Your task to perform on an android device: Search for top rated burger restaurants on Maps Image 0: 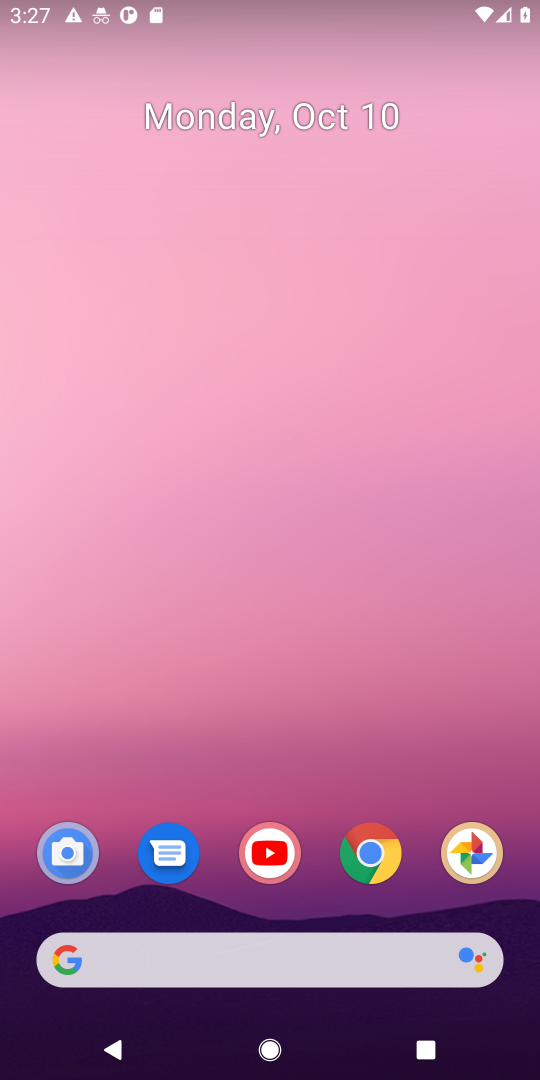
Step 0: click (403, 864)
Your task to perform on an android device: Search for top rated burger restaurants on Maps Image 1: 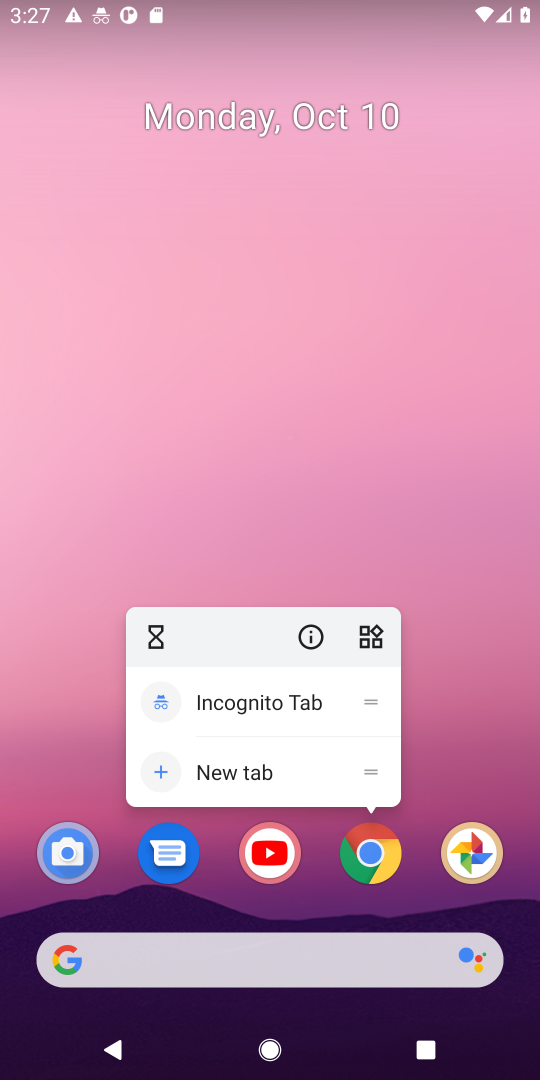
Step 1: click (371, 859)
Your task to perform on an android device: Search for top rated burger restaurants on Maps Image 2: 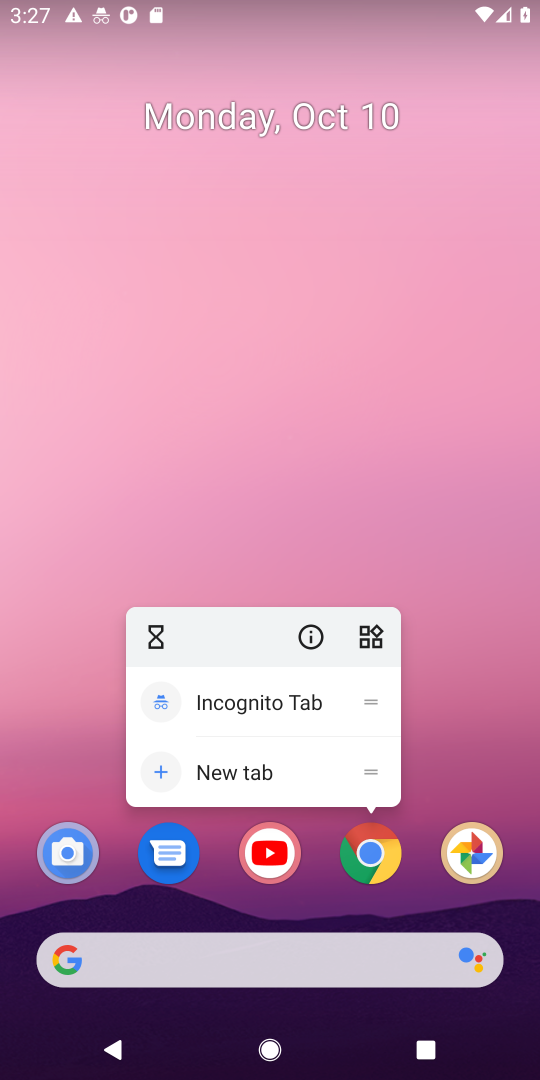
Step 2: click (355, 845)
Your task to perform on an android device: Search for top rated burger restaurants on Maps Image 3: 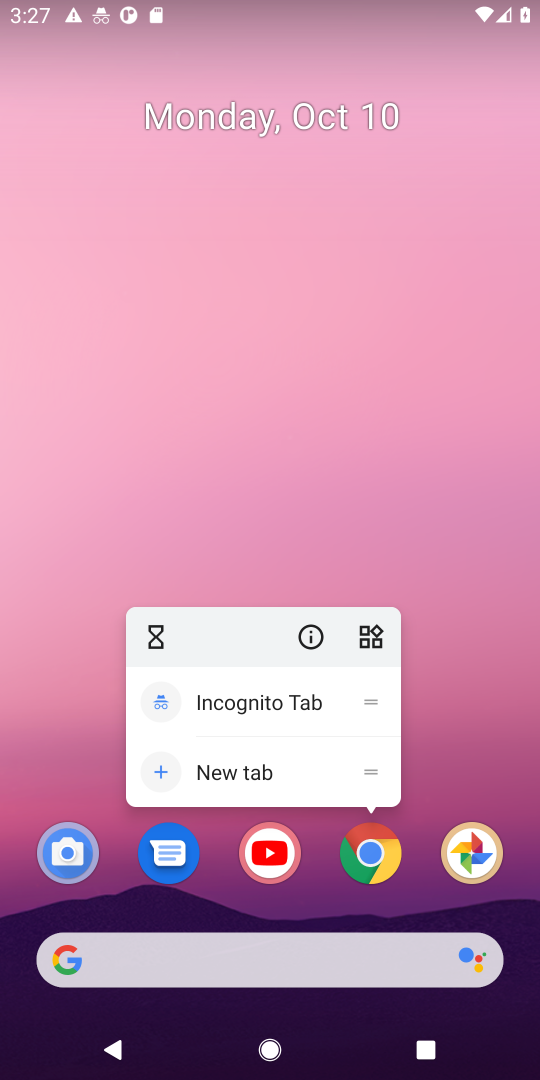
Step 3: click (384, 880)
Your task to perform on an android device: Search for top rated burger restaurants on Maps Image 4: 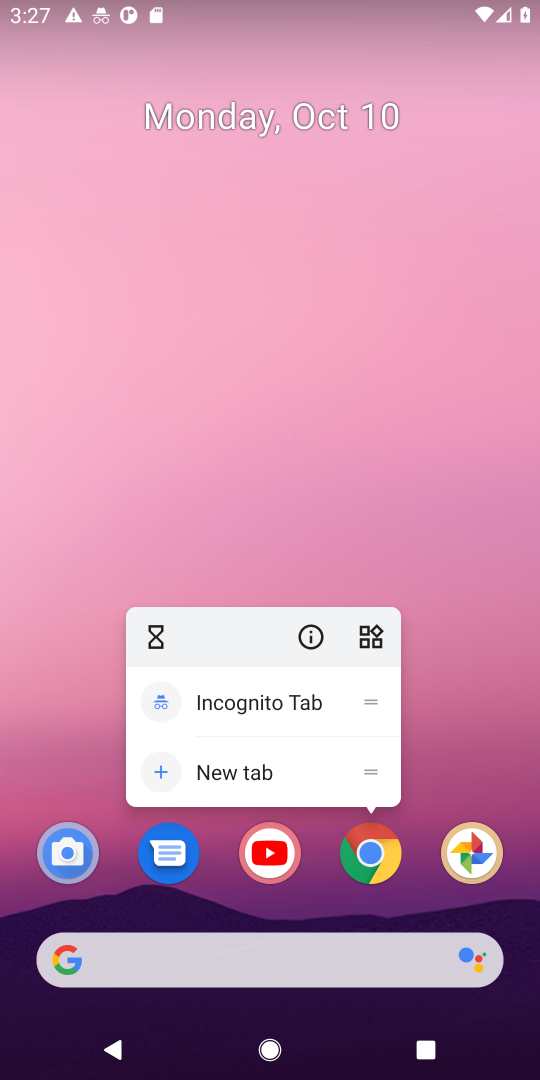
Step 4: click (386, 881)
Your task to perform on an android device: Search for top rated burger restaurants on Maps Image 5: 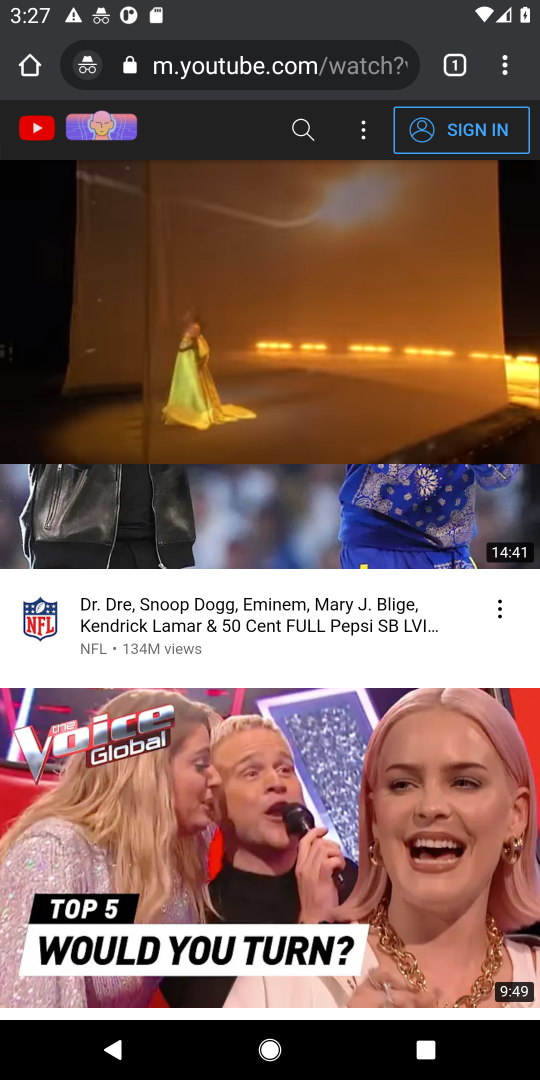
Step 5: click (259, 76)
Your task to perform on an android device: Search for top rated burger restaurants on Maps Image 6: 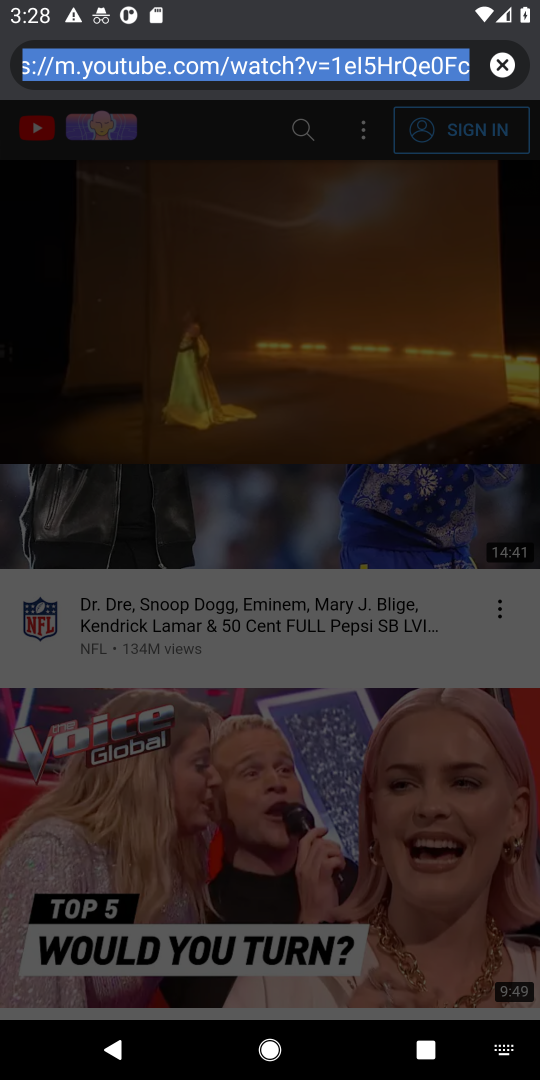
Step 6: type "top rated burger restaurants on Maps"
Your task to perform on an android device: Search for top rated burger restaurants on Maps Image 7: 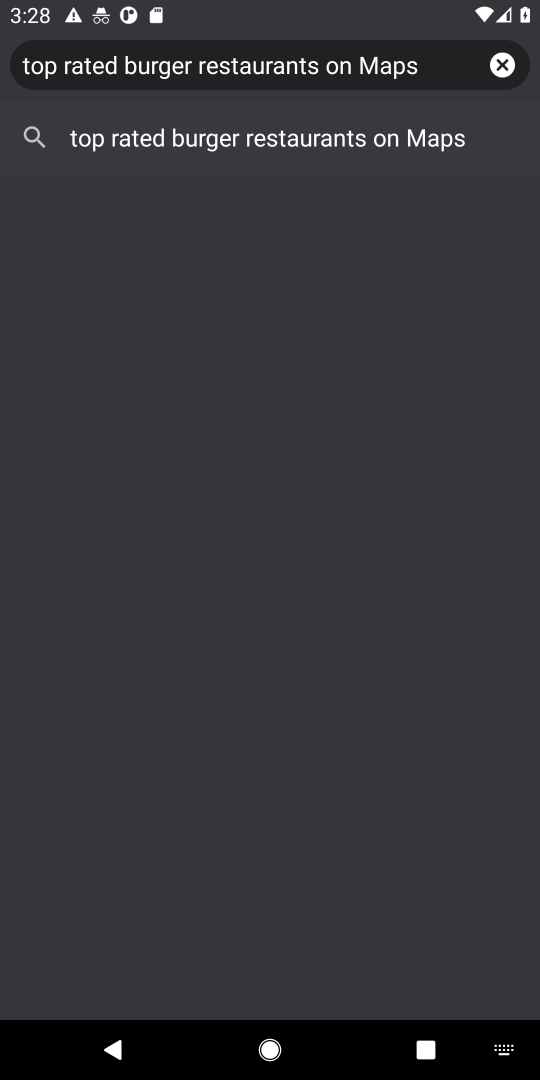
Step 7: type ""
Your task to perform on an android device: Search for top rated burger restaurants on Maps Image 8: 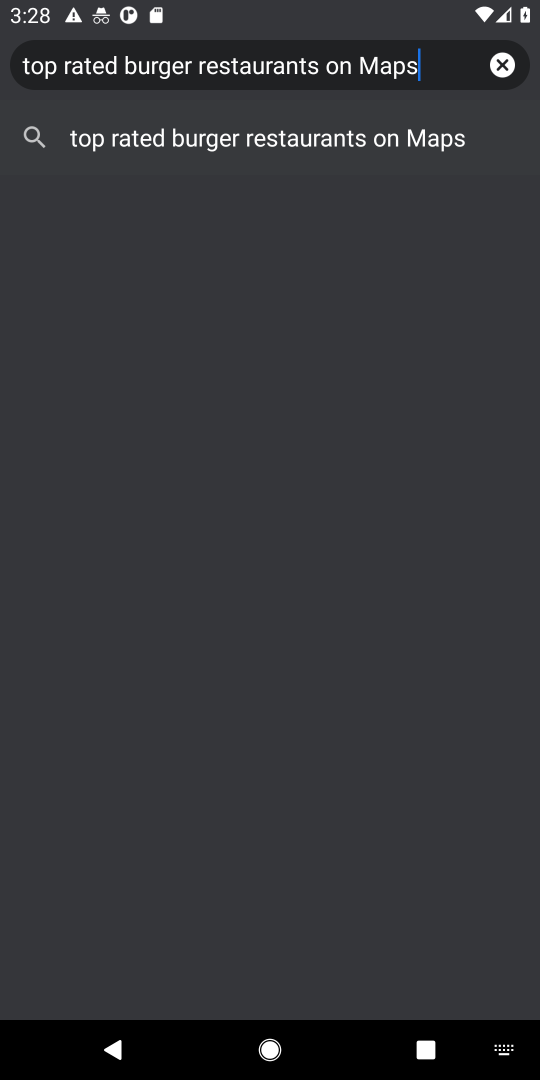
Step 8: click (347, 151)
Your task to perform on an android device: Search for top rated burger restaurants on Maps Image 9: 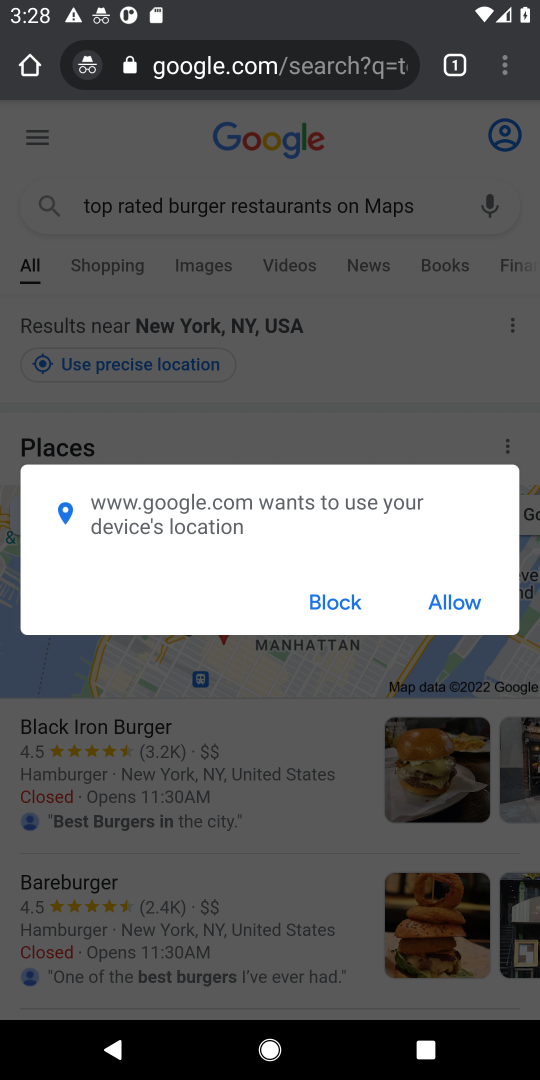
Step 9: click (365, 603)
Your task to perform on an android device: Search for top rated burger restaurants on Maps Image 10: 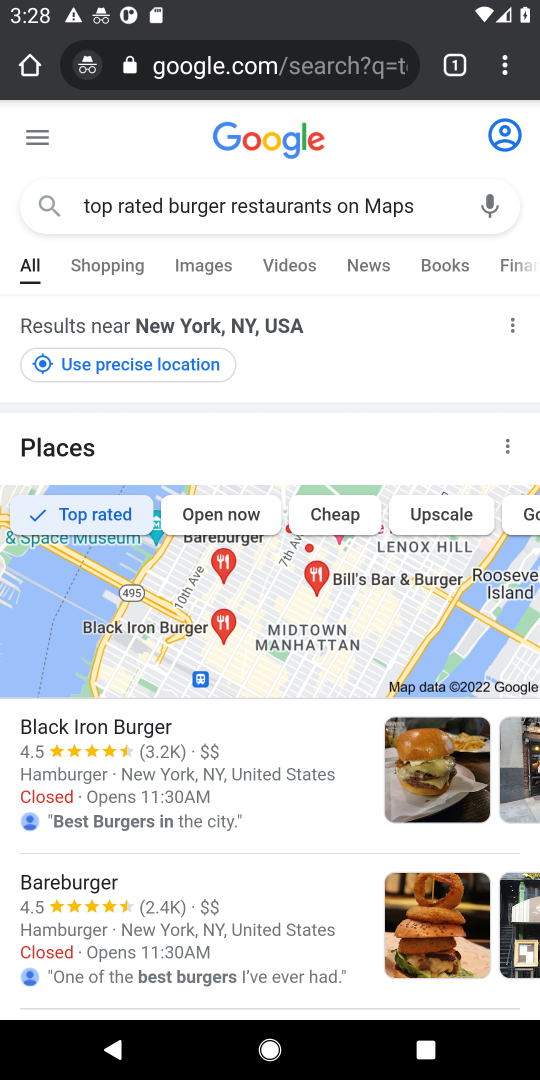
Step 10: click (327, 624)
Your task to perform on an android device: Search for top rated burger restaurants on Maps Image 11: 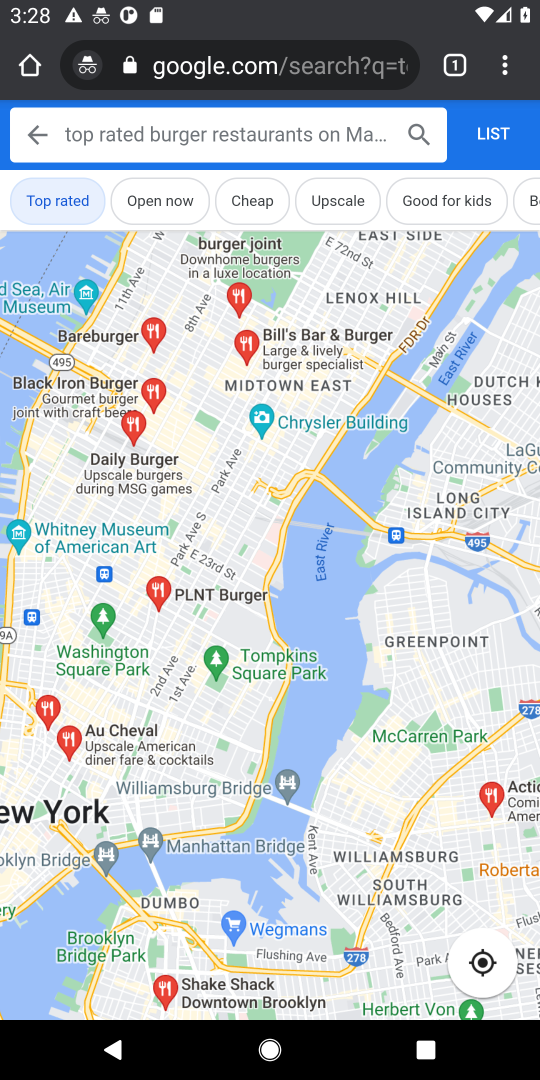
Step 11: click (31, 197)
Your task to perform on an android device: Search for top rated burger restaurants on Maps Image 12: 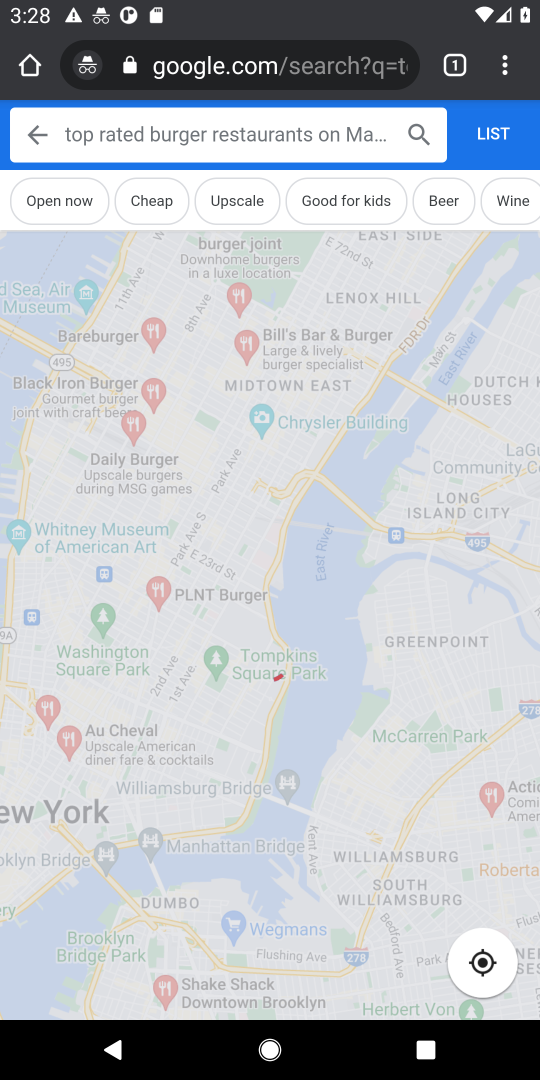
Step 12: click (416, 136)
Your task to perform on an android device: Search for top rated burger restaurants on Maps Image 13: 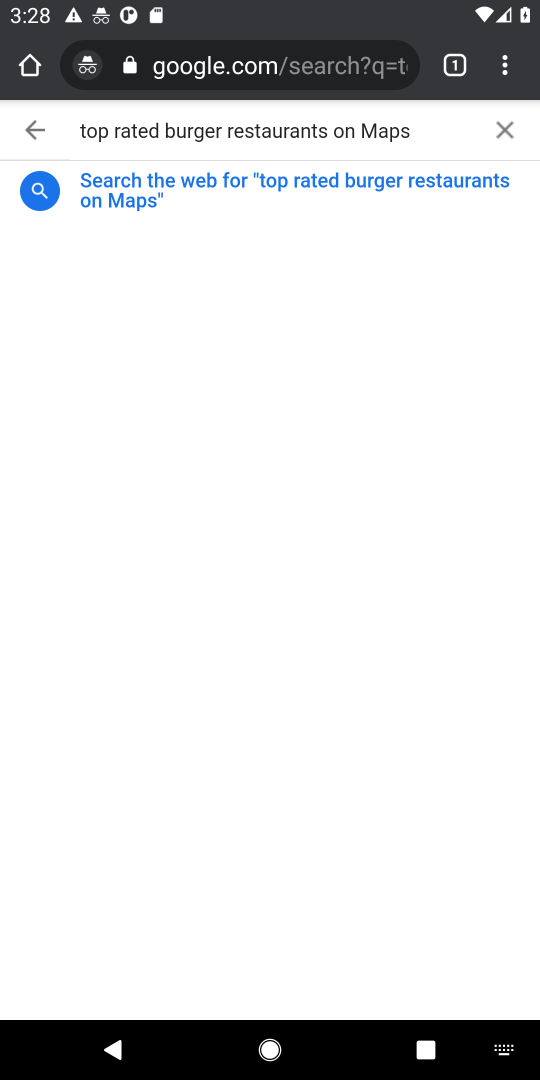
Step 13: click (333, 191)
Your task to perform on an android device: Search for top rated burger restaurants on Maps Image 14: 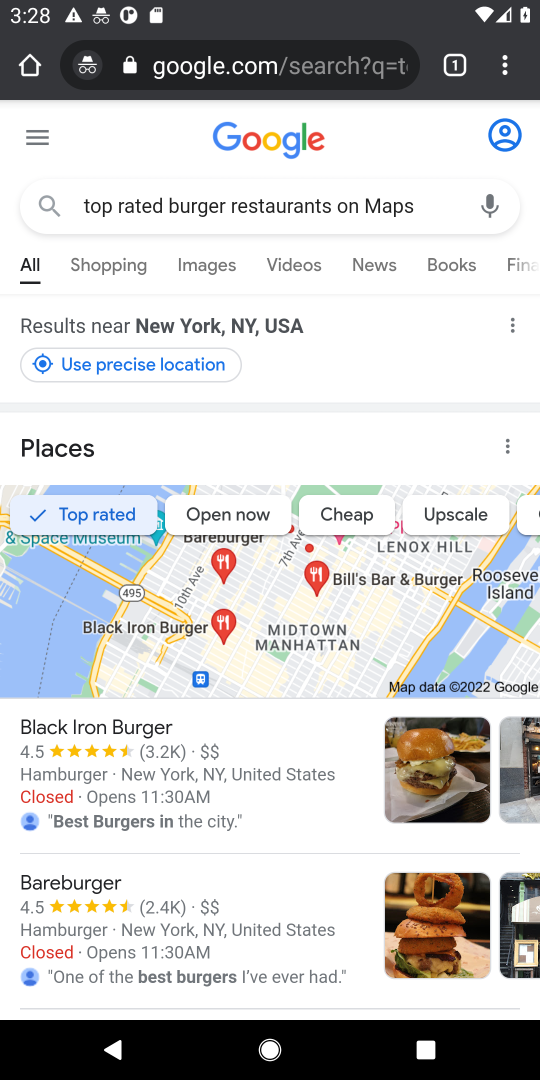
Step 14: click (170, 603)
Your task to perform on an android device: Search for top rated burger restaurants on Maps Image 15: 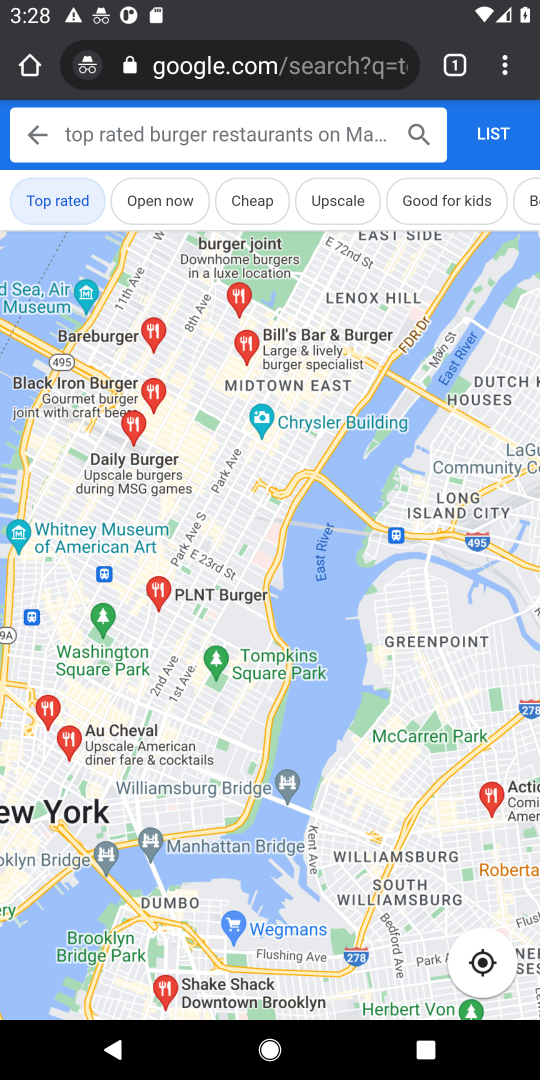
Step 15: drag from (312, 490) to (328, 404)
Your task to perform on an android device: Search for top rated burger restaurants on Maps Image 16: 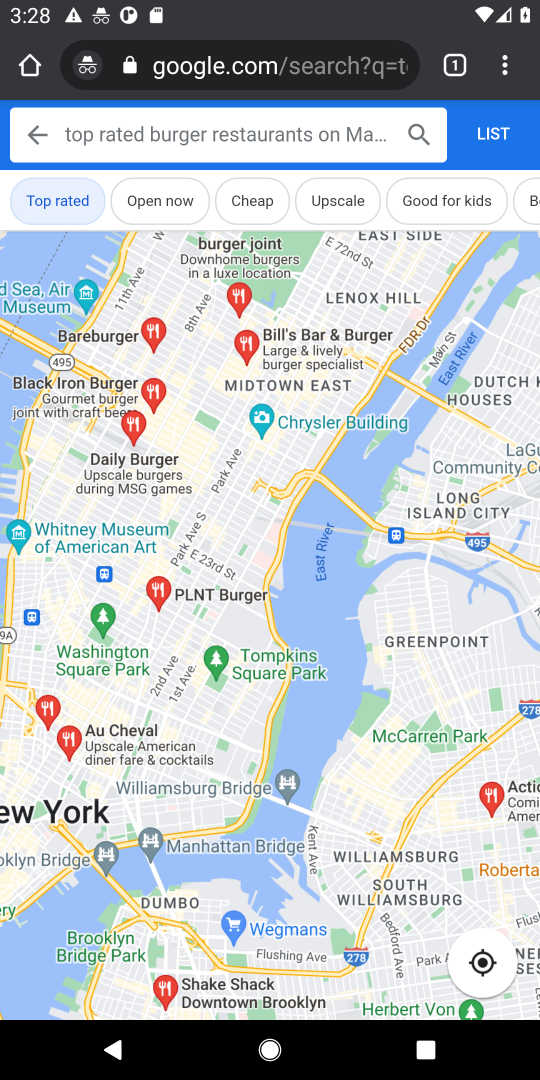
Step 16: drag from (161, 489) to (331, 444)
Your task to perform on an android device: Search for top rated burger restaurants on Maps Image 17: 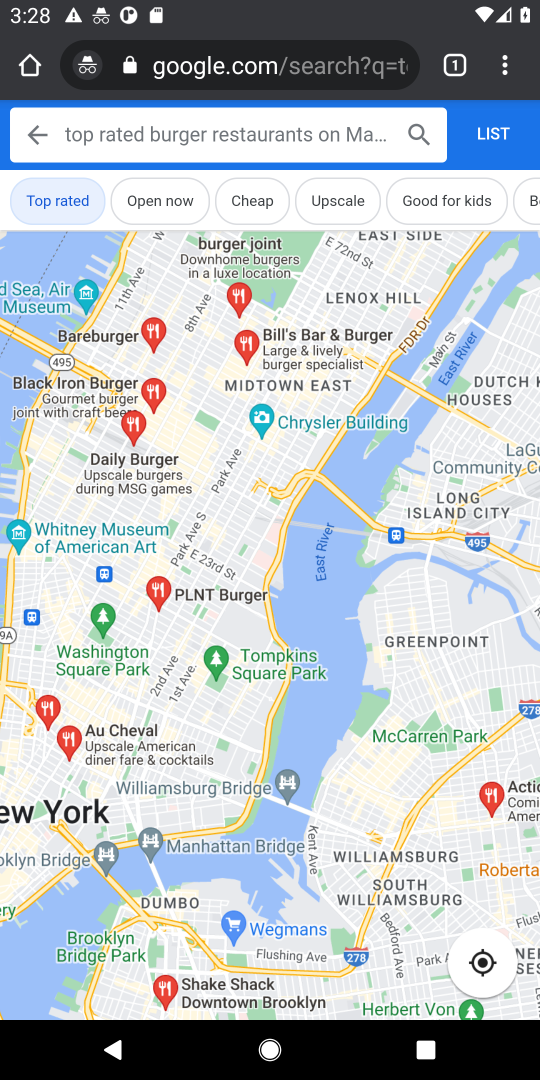
Step 17: drag from (189, 503) to (339, 379)
Your task to perform on an android device: Search for top rated burger restaurants on Maps Image 18: 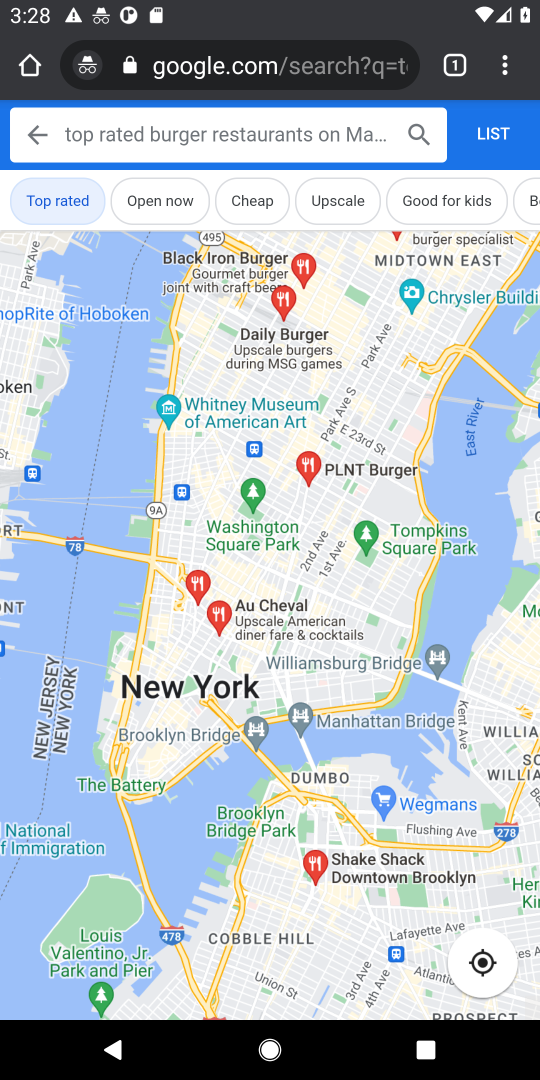
Step 18: drag from (121, 544) to (211, 662)
Your task to perform on an android device: Search for top rated burger restaurants on Maps Image 19: 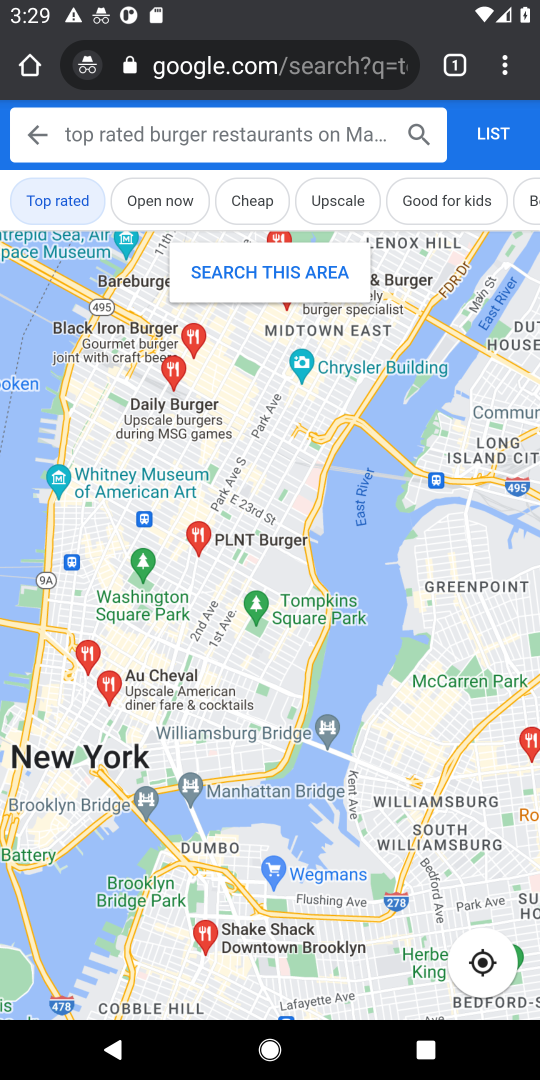
Step 19: drag from (245, 622) to (434, 648)
Your task to perform on an android device: Search for top rated burger restaurants on Maps Image 20: 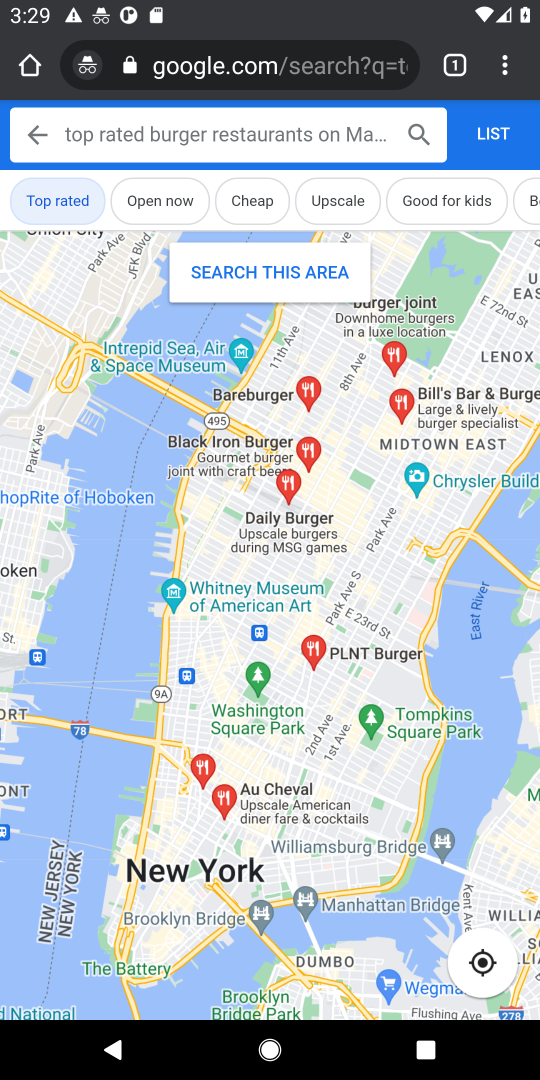
Step 20: drag from (363, 447) to (297, 786)
Your task to perform on an android device: Search for top rated burger restaurants on Maps Image 21: 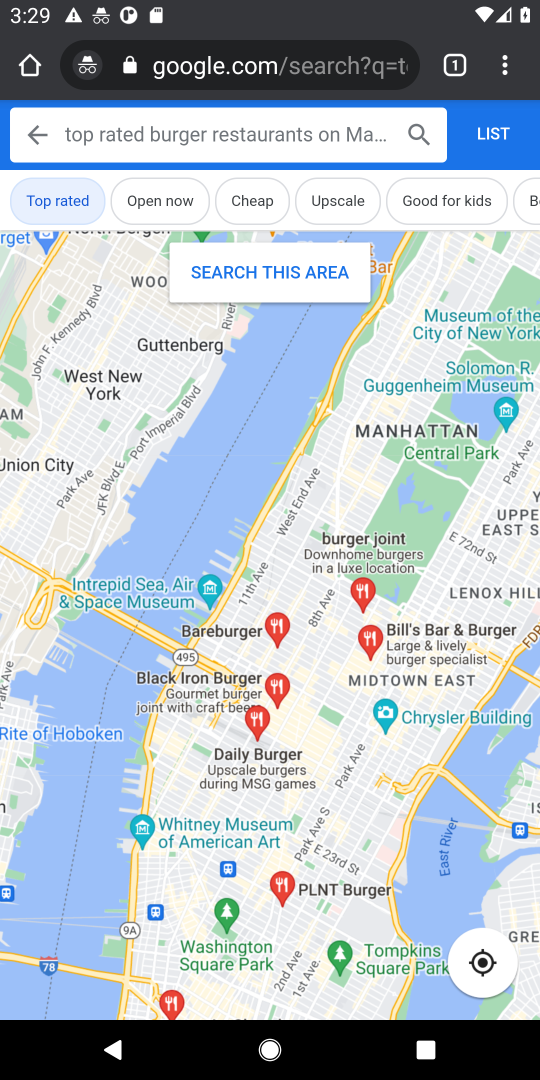
Step 21: drag from (277, 618) to (326, 721)
Your task to perform on an android device: Search for top rated burger restaurants on Maps Image 22: 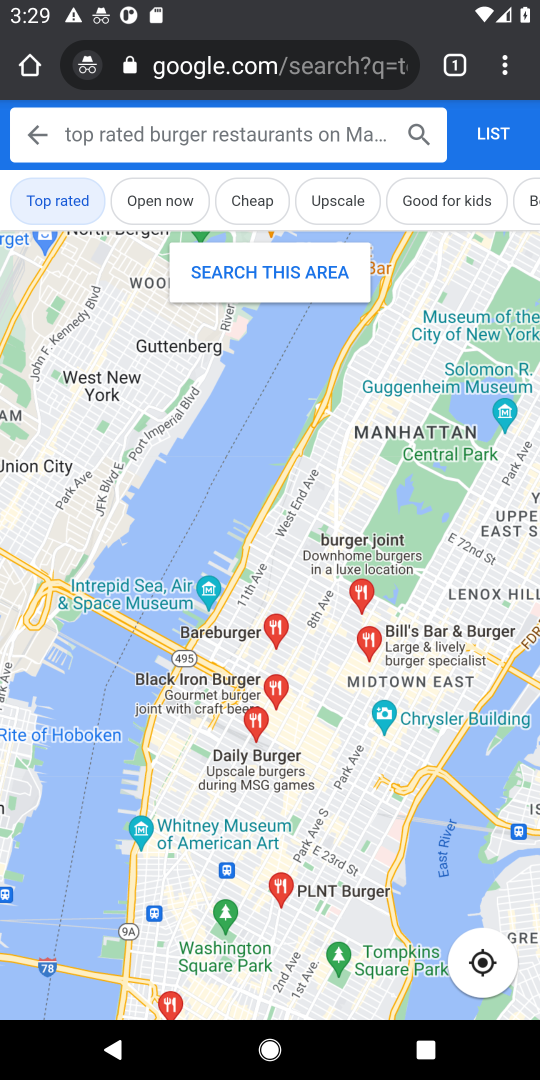
Step 22: drag from (339, 710) to (339, 777)
Your task to perform on an android device: Search for top rated burger restaurants on Maps Image 23: 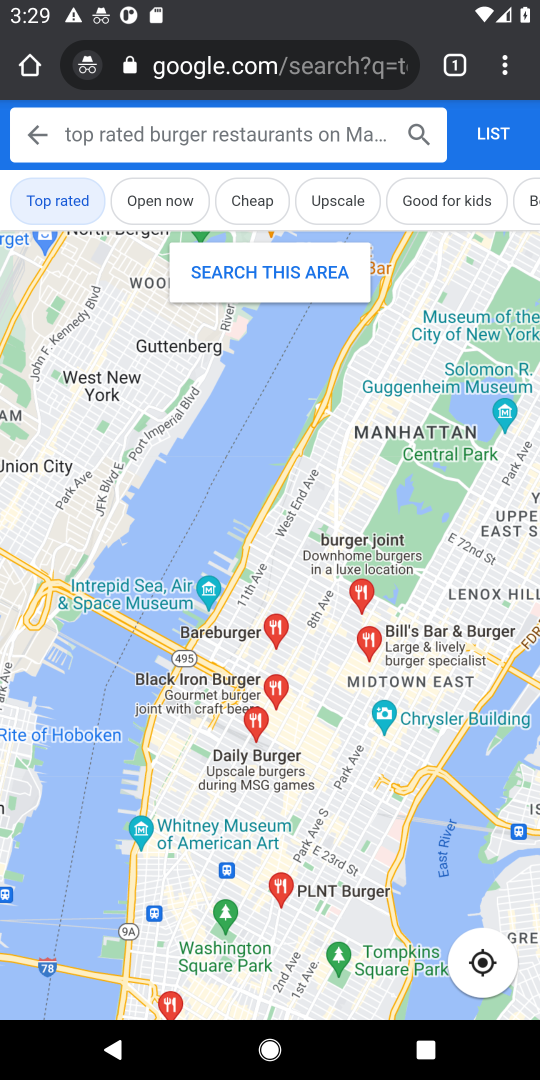
Step 23: drag from (371, 704) to (347, 801)
Your task to perform on an android device: Search for top rated burger restaurants on Maps Image 24: 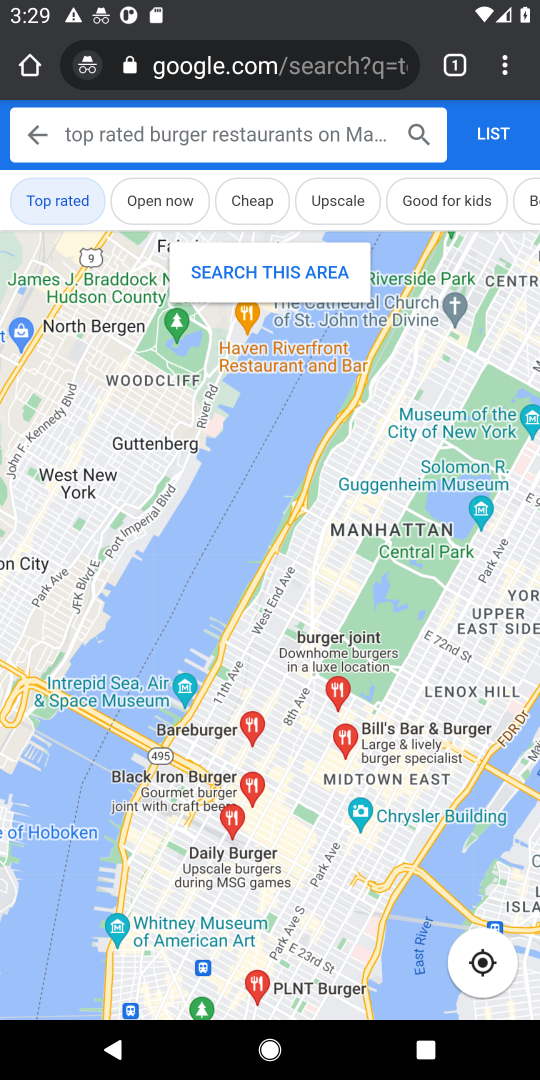
Step 24: drag from (328, 747) to (346, 693)
Your task to perform on an android device: Search for top rated burger restaurants on Maps Image 25: 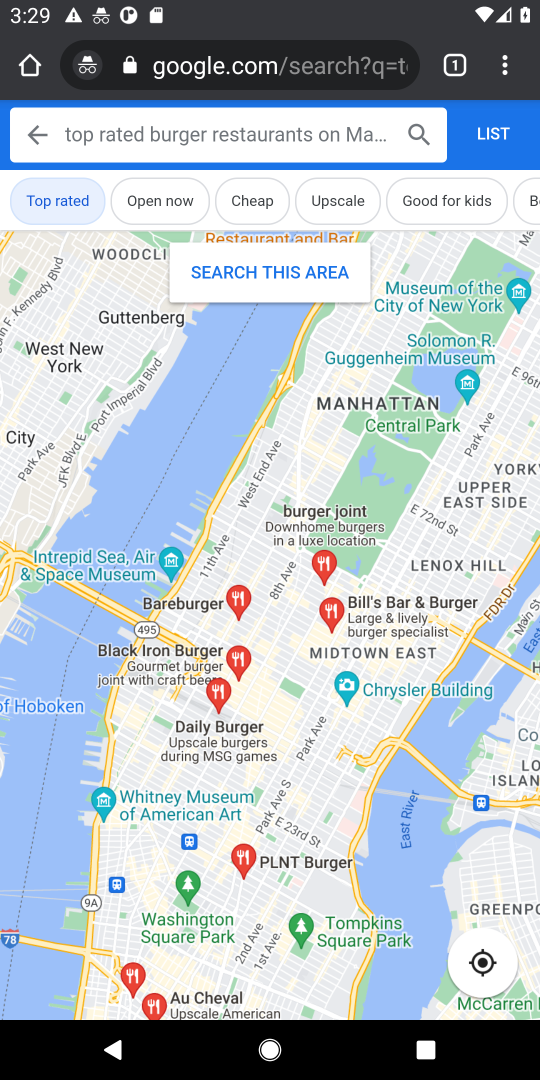
Step 25: click (315, 460)
Your task to perform on an android device: Search for top rated burger restaurants on Maps Image 26: 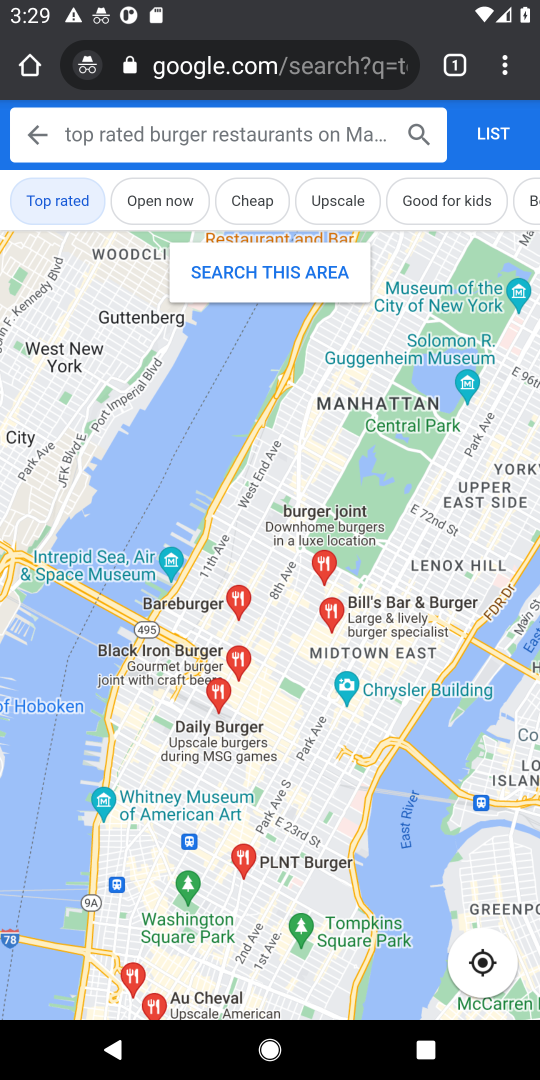
Step 26: drag from (279, 446) to (418, 621)
Your task to perform on an android device: Search for top rated burger restaurants on Maps Image 27: 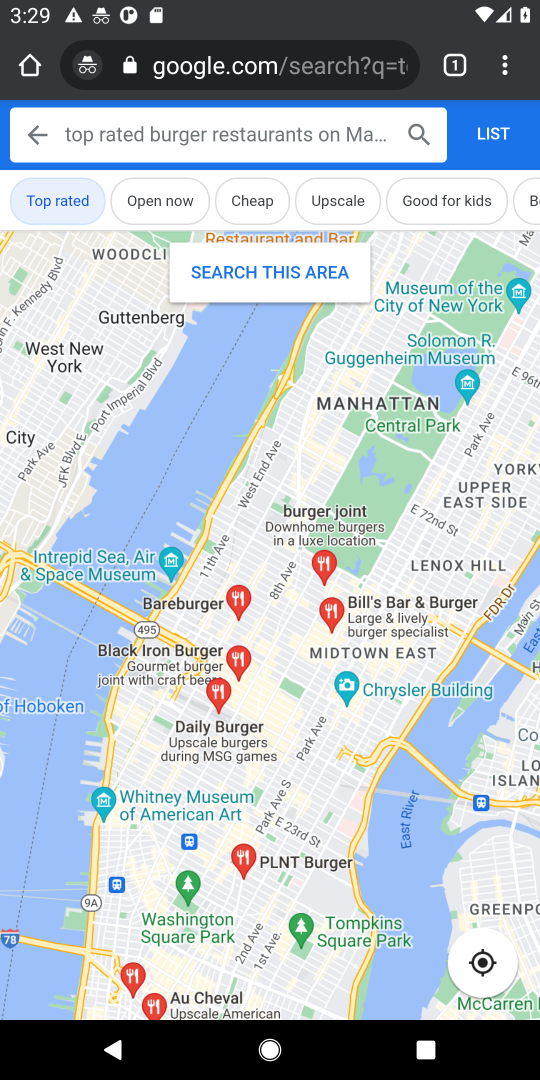
Step 27: drag from (398, 646) to (420, 764)
Your task to perform on an android device: Search for top rated burger restaurants on Maps Image 28: 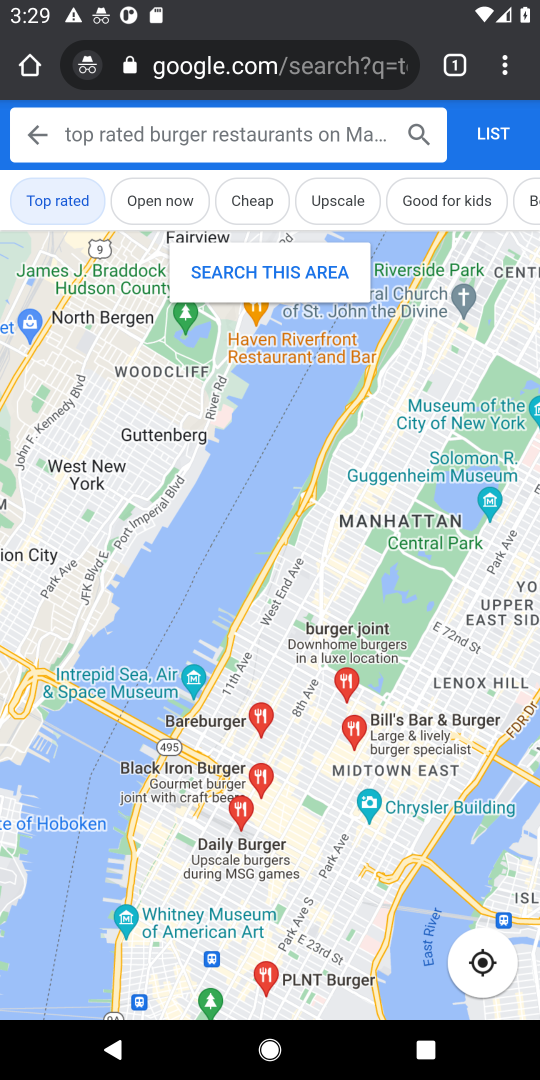
Step 28: click (376, 752)
Your task to perform on an android device: Search for top rated burger restaurants on Maps Image 29: 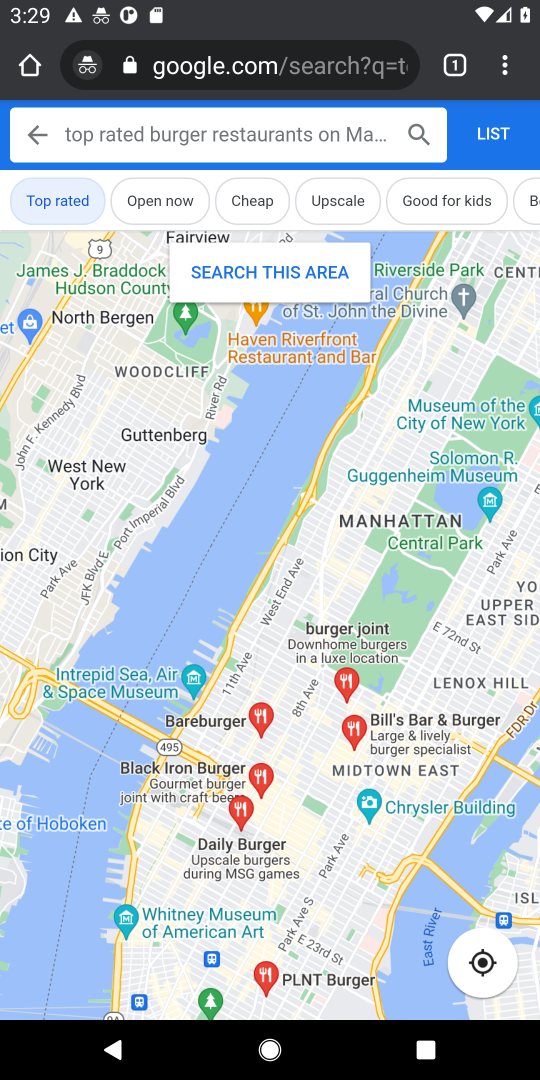
Step 29: click (387, 725)
Your task to perform on an android device: Search for top rated burger restaurants on Maps Image 30: 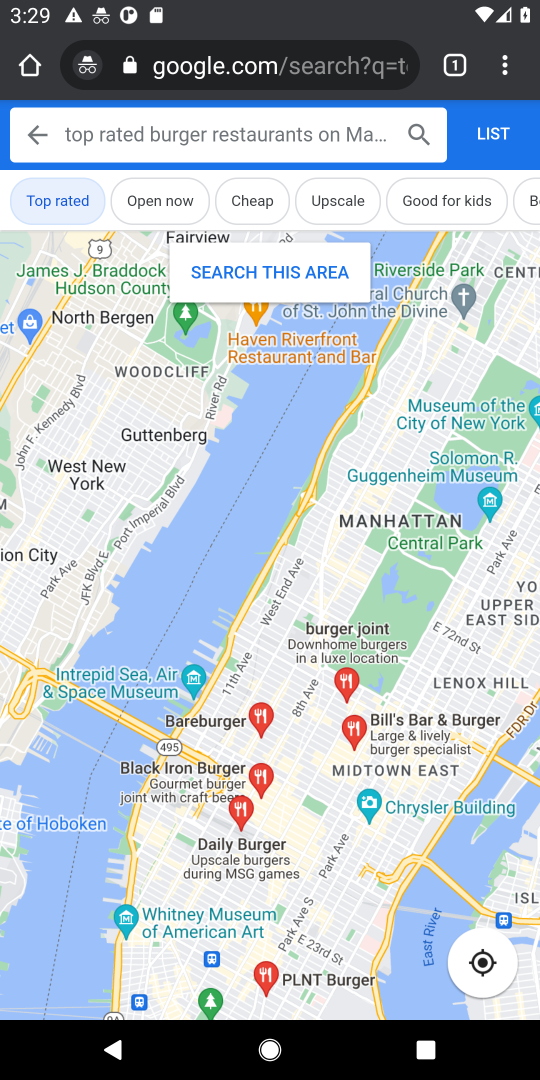
Step 30: click (455, 786)
Your task to perform on an android device: Search for top rated burger restaurants on Maps Image 31: 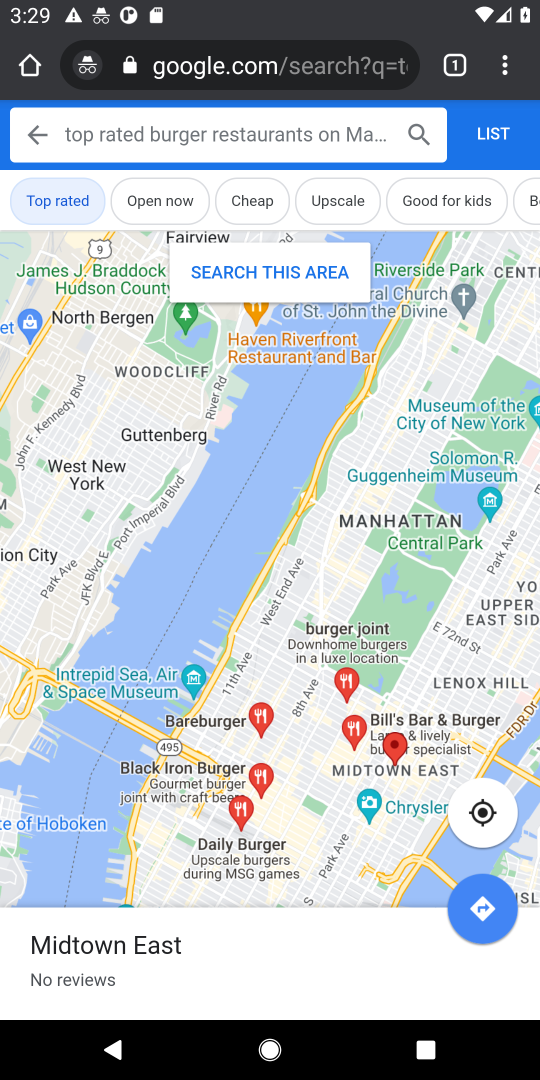
Step 31: drag from (271, 842) to (302, 886)
Your task to perform on an android device: Search for top rated burger restaurants on Maps Image 32: 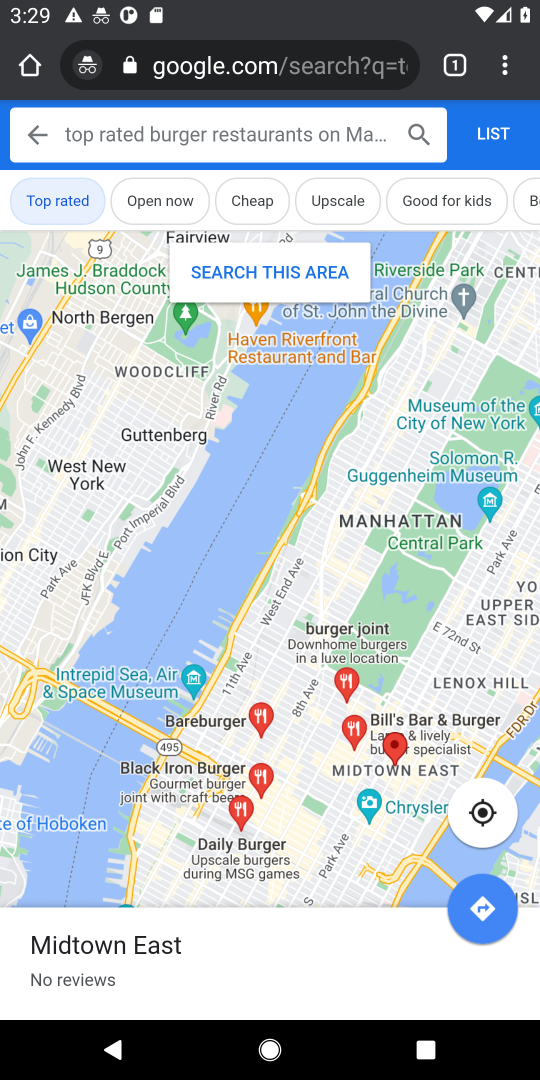
Step 32: drag from (180, 495) to (369, 634)
Your task to perform on an android device: Search for top rated burger restaurants on Maps Image 33: 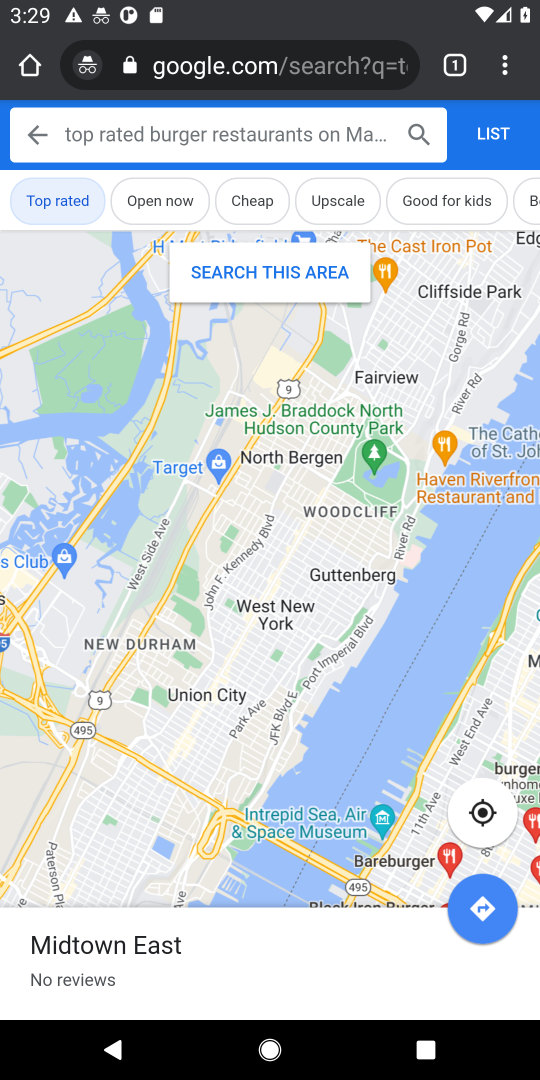
Step 33: click (405, 607)
Your task to perform on an android device: Search for top rated burger restaurants on Maps Image 34: 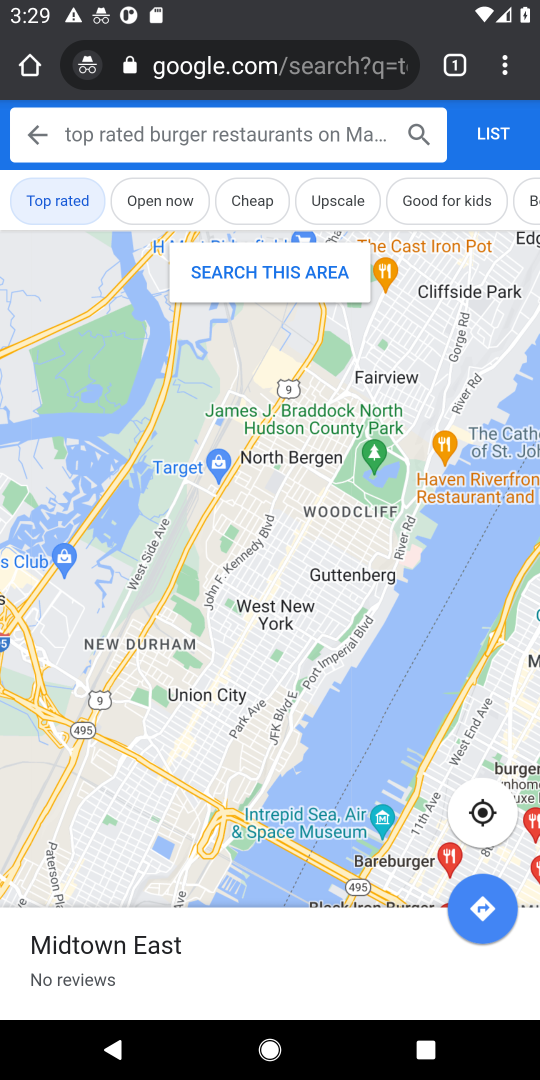
Step 34: task complete